Your task to perform on an android device: open a bookmark in the chrome app Image 0: 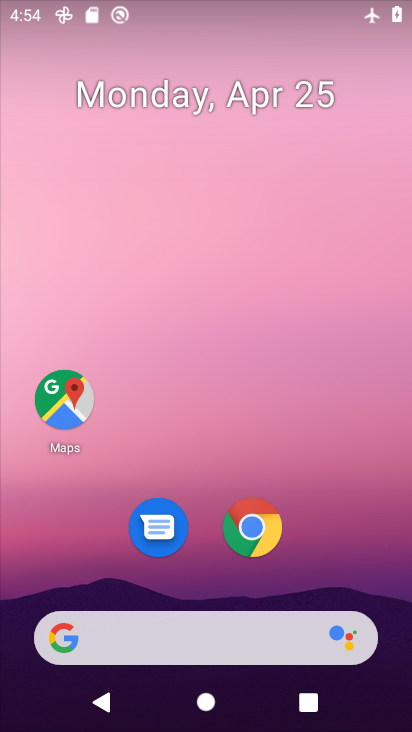
Step 0: click (257, 525)
Your task to perform on an android device: open a bookmark in the chrome app Image 1: 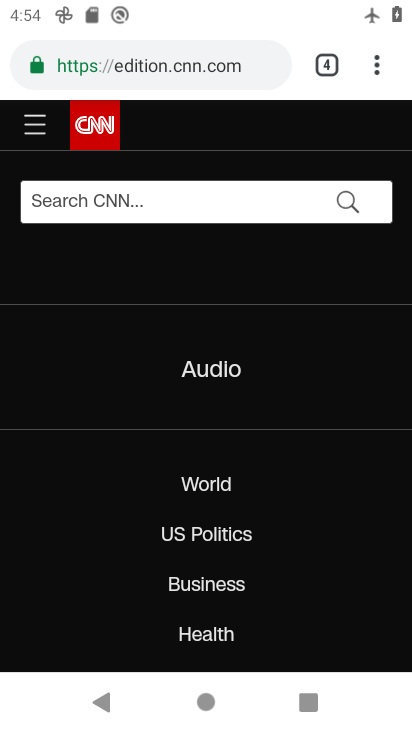
Step 1: click (376, 67)
Your task to perform on an android device: open a bookmark in the chrome app Image 2: 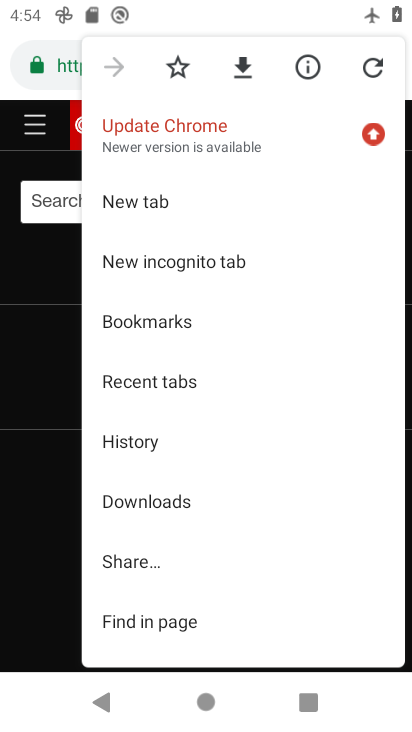
Step 2: click (125, 320)
Your task to perform on an android device: open a bookmark in the chrome app Image 3: 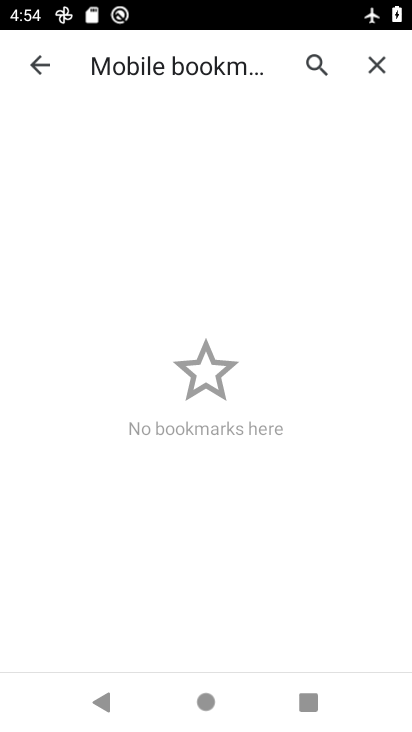
Step 3: task complete